Your task to perform on an android device: Show me popular games on the Play Store Image 0: 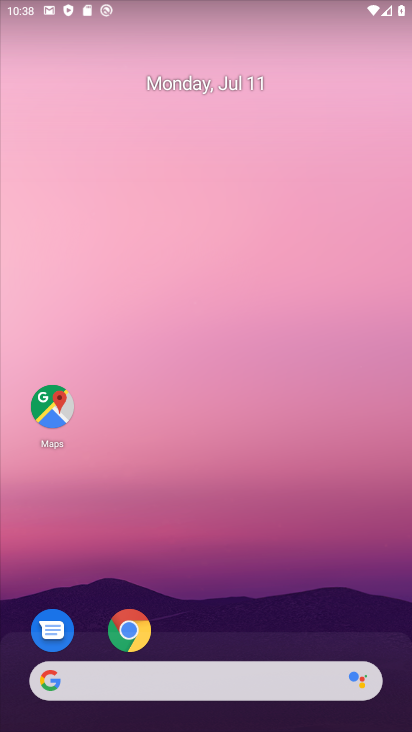
Step 0: drag from (278, 649) to (167, 5)
Your task to perform on an android device: Show me popular games on the Play Store Image 1: 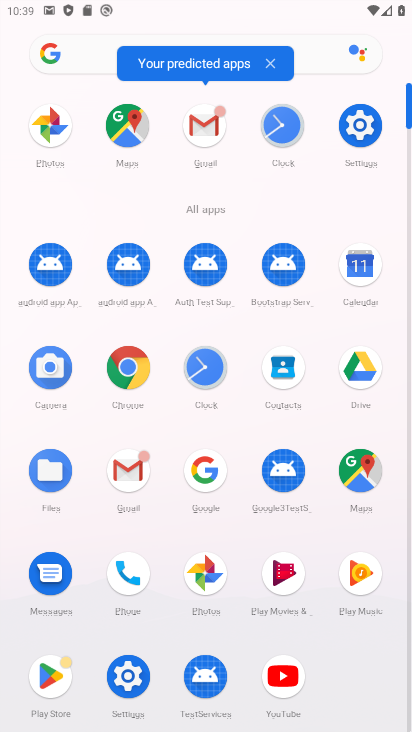
Step 1: click (53, 676)
Your task to perform on an android device: Show me popular games on the Play Store Image 2: 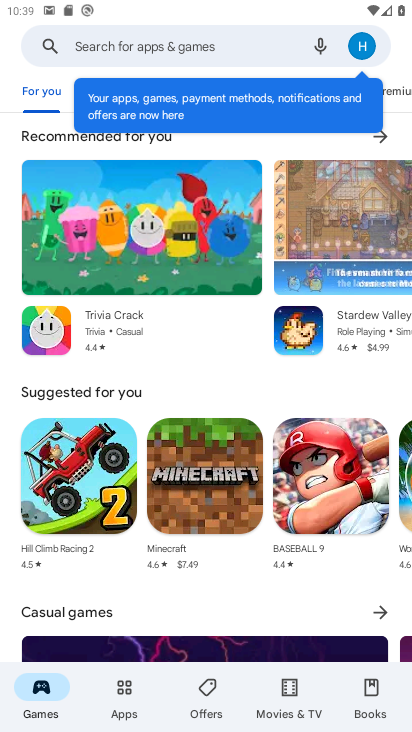
Step 2: task complete